Your task to perform on an android device: Open battery settings Image 0: 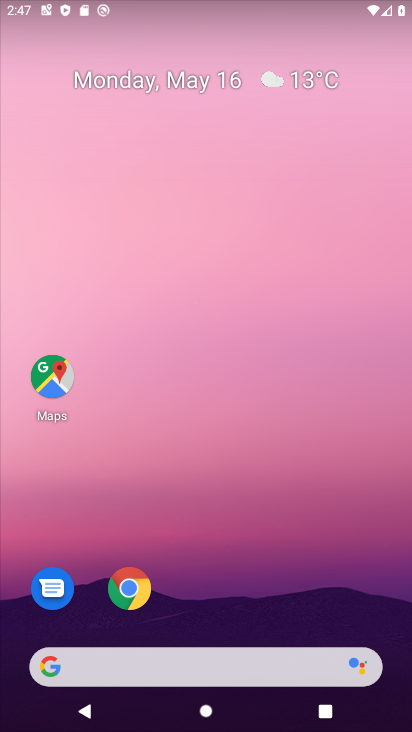
Step 0: drag from (241, 651) to (265, 46)
Your task to perform on an android device: Open battery settings Image 1: 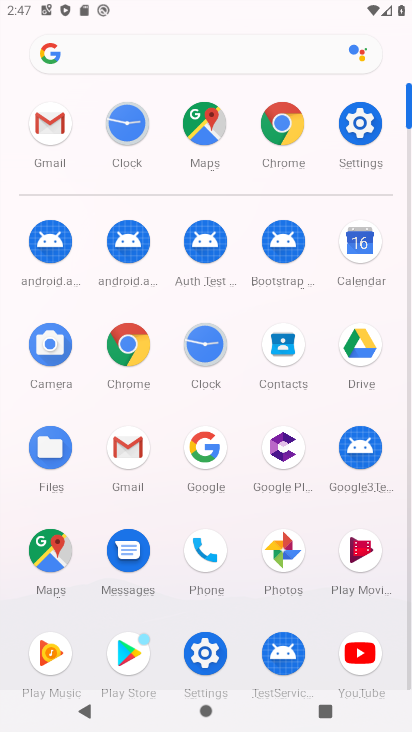
Step 1: click (350, 130)
Your task to perform on an android device: Open battery settings Image 2: 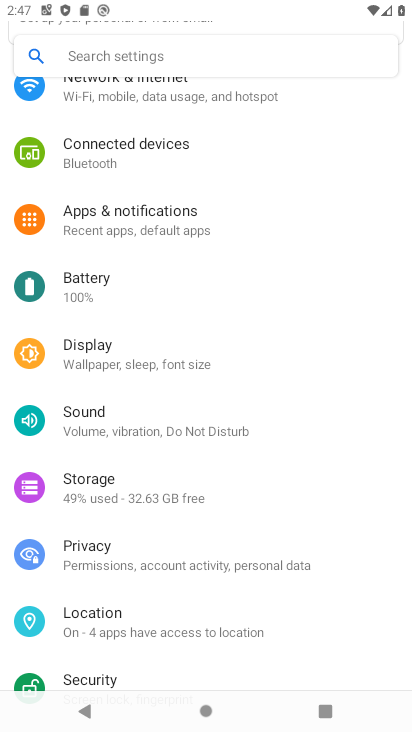
Step 2: click (150, 280)
Your task to perform on an android device: Open battery settings Image 3: 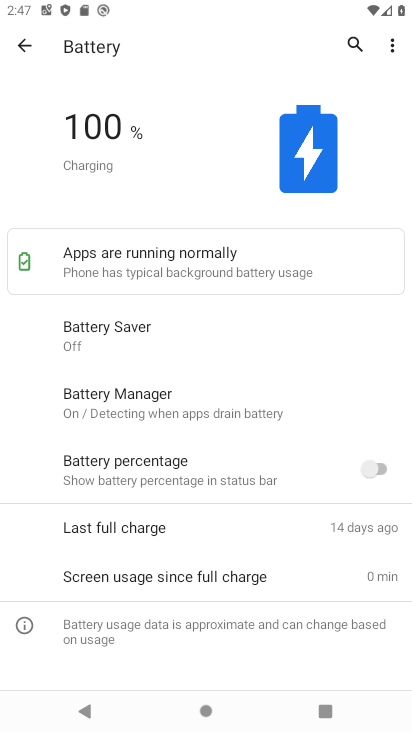
Step 3: task complete